Your task to perform on an android device: Search for razer nari on costco, select the first entry, and add it to the cart. Image 0: 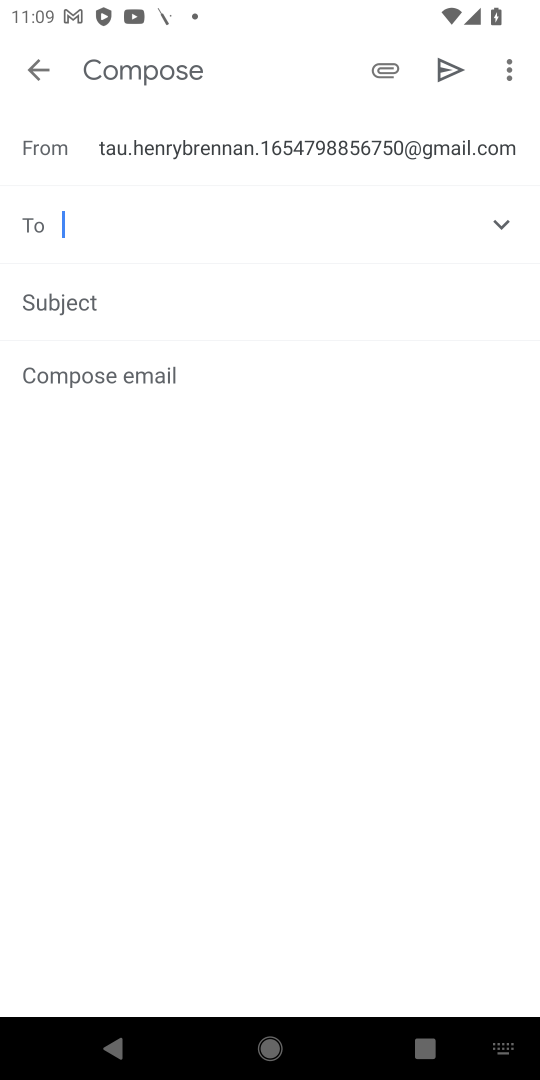
Step 0: press home button
Your task to perform on an android device: Search for razer nari on costco, select the first entry, and add it to the cart. Image 1: 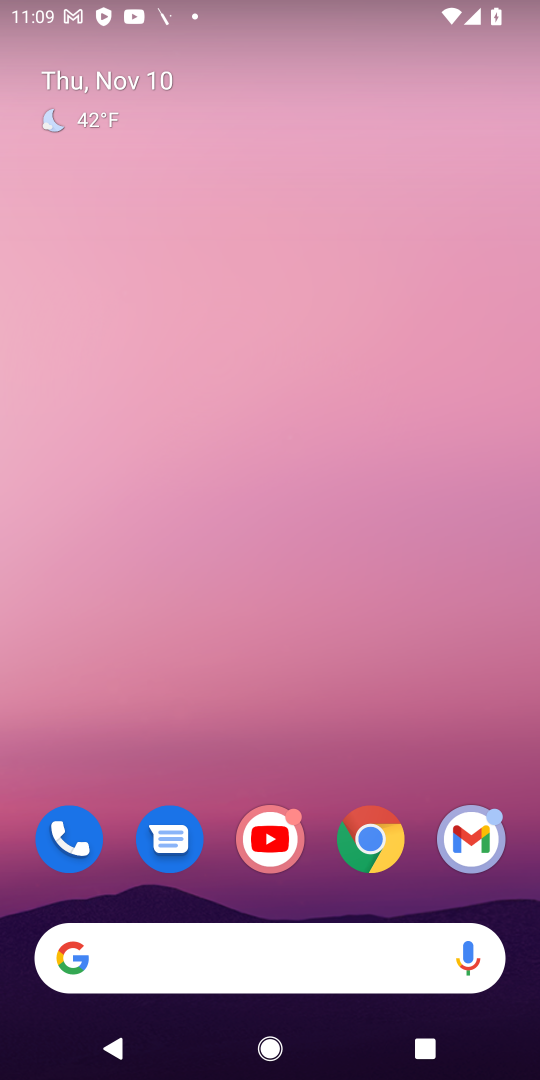
Step 1: click (367, 834)
Your task to perform on an android device: Search for razer nari on costco, select the first entry, and add it to the cart. Image 2: 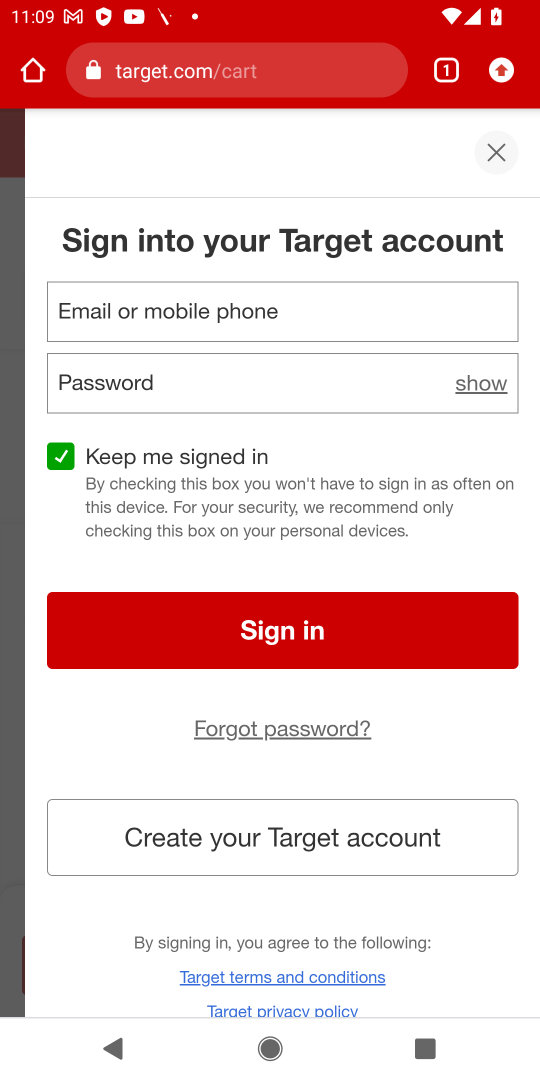
Step 2: click (298, 72)
Your task to perform on an android device: Search for razer nari on costco, select the first entry, and add it to the cart. Image 3: 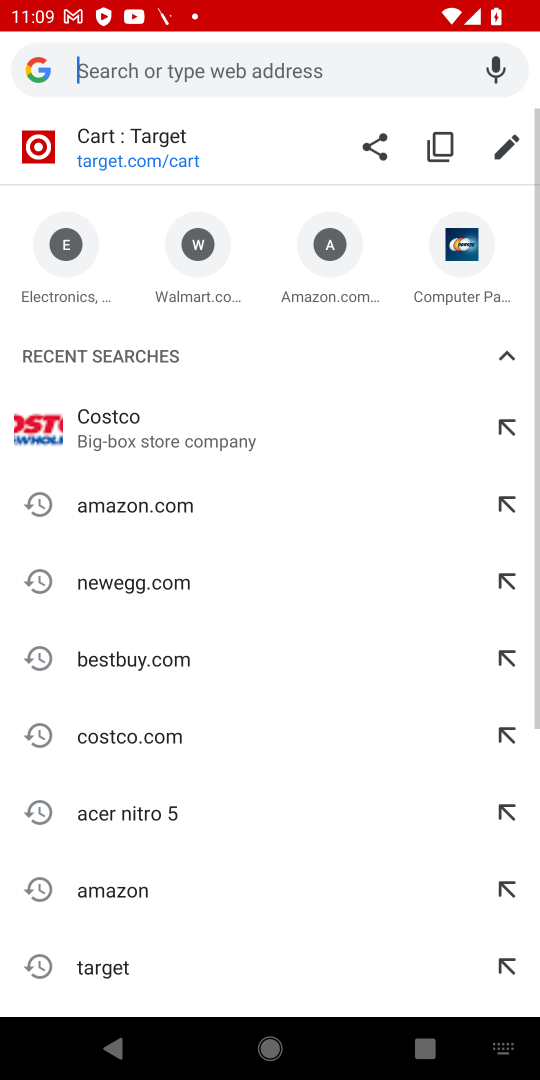
Step 3: click (144, 735)
Your task to perform on an android device: Search for razer nari on costco, select the first entry, and add it to the cart. Image 4: 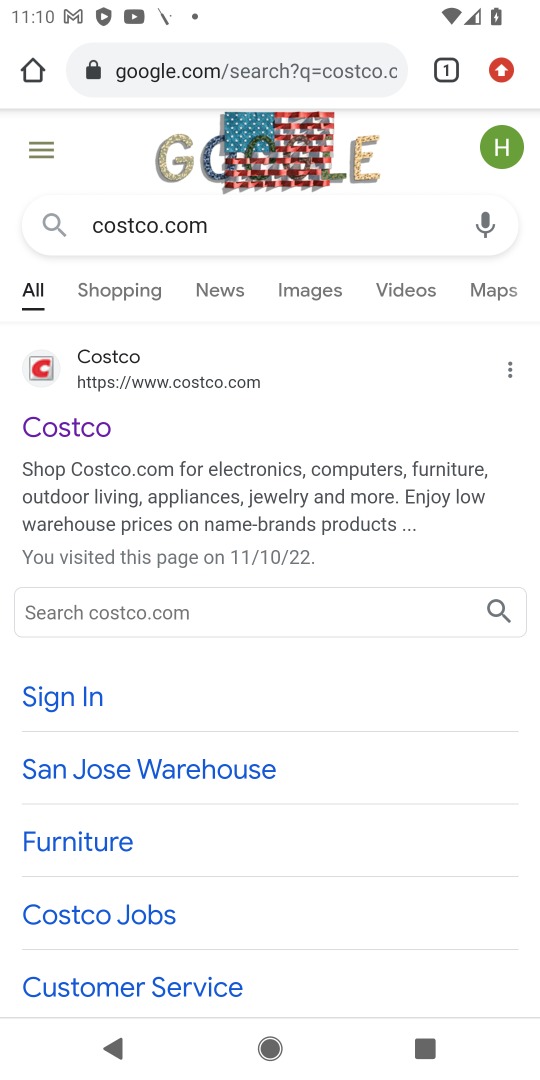
Step 4: click (204, 379)
Your task to perform on an android device: Search for razer nari on costco, select the first entry, and add it to the cart. Image 5: 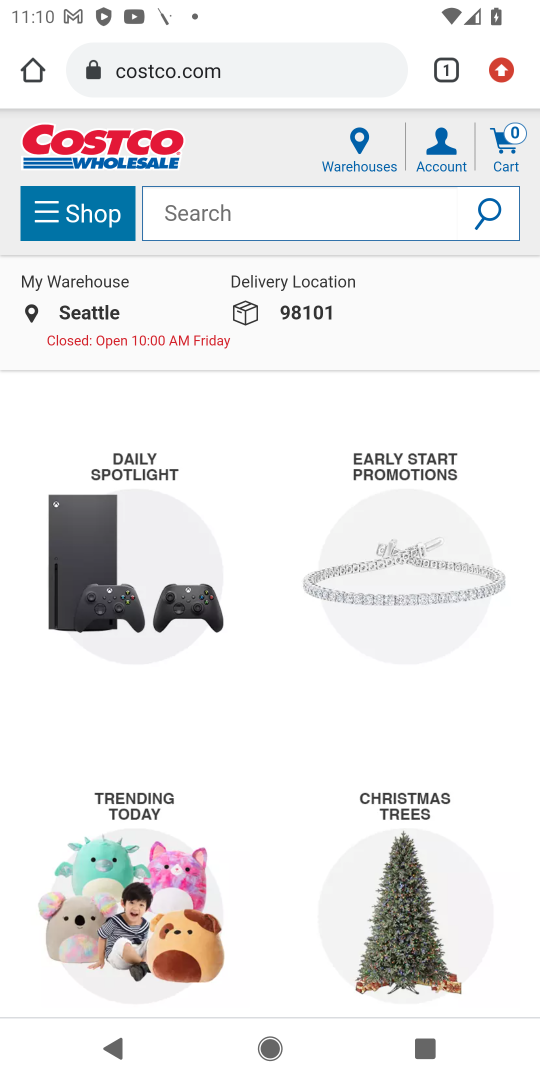
Step 5: click (373, 206)
Your task to perform on an android device: Search for razer nari on costco, select the first entry, and add it to the cart. Image 6: 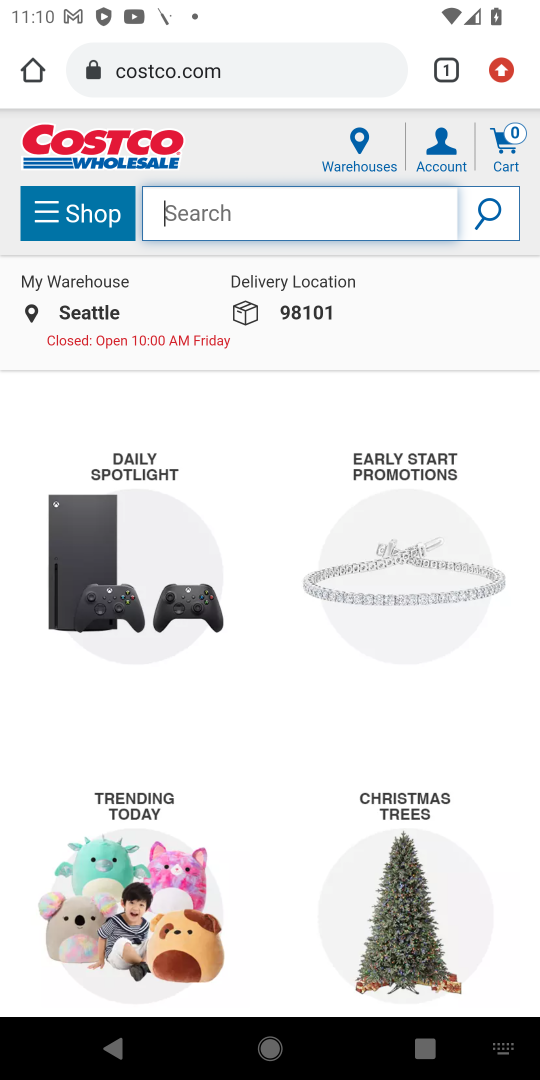
Step 6: type "razer nari"
Your task to perform on an android device: Search for razer nari on costco, select the first entry, and add it to the cart. Image 7: 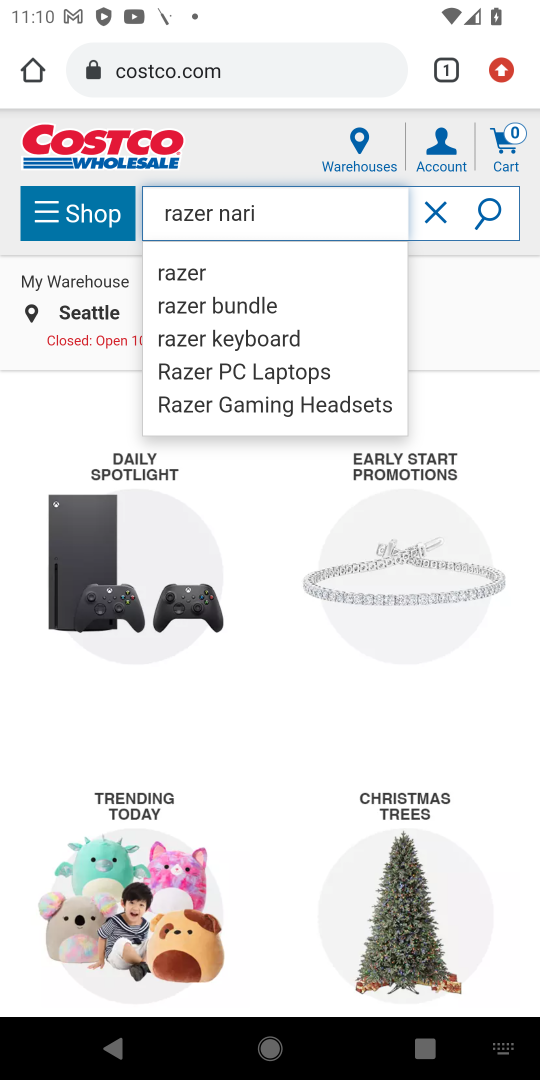
Step 7: click (494, 279)
Your task to perform on an android device: Search for razer nari on costco, select the first entry, and add it to the cart. Image 8: 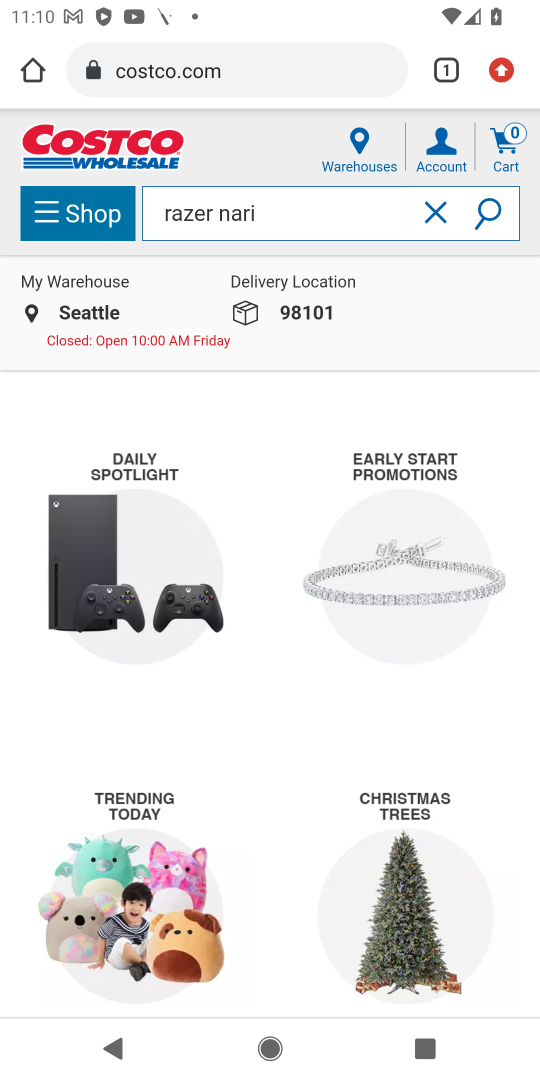
Step 8: click (487, 226)
Your task to perform on an android device: Search for razer nari on costco, select the first entry, and add it to the cart. Image 9: 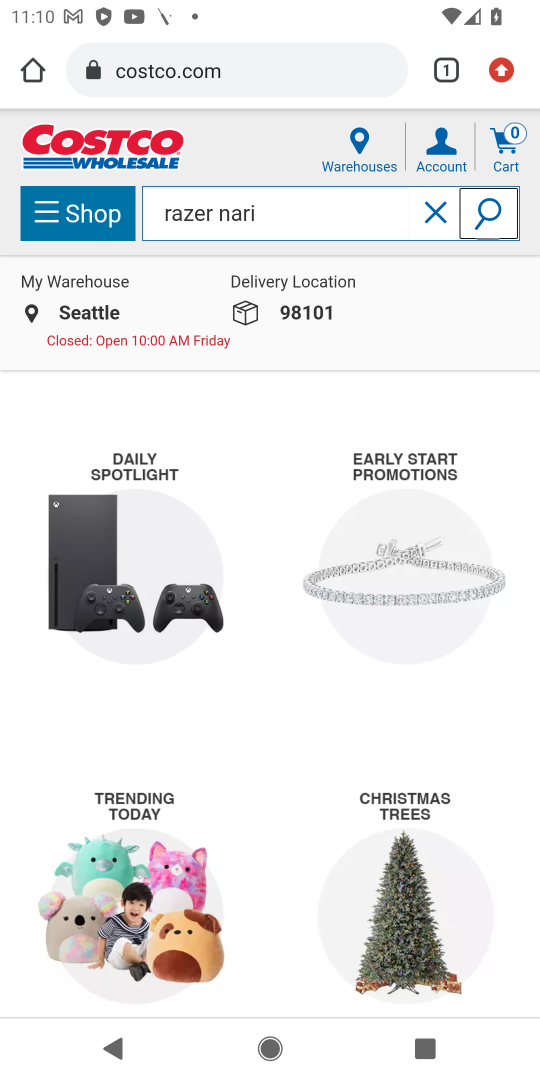
Step 9: click (486, 217)
Your task to perform on an android device: Search for razer nari on costco, select the first entry, and add it to the cart. Image 10: 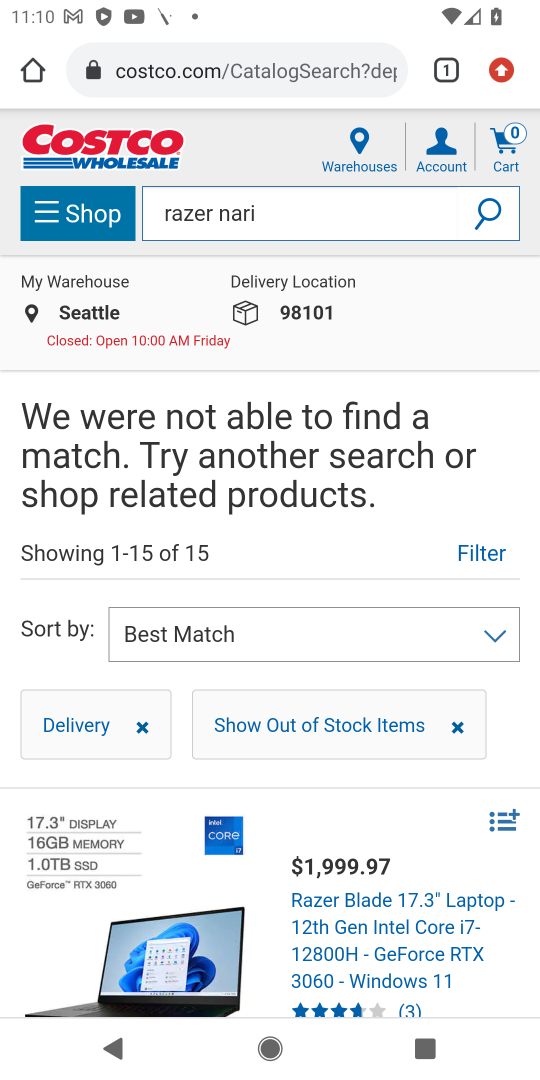
Step 10: task complete